Your task to perform on an android device: Go to Reddit.com Image 0: 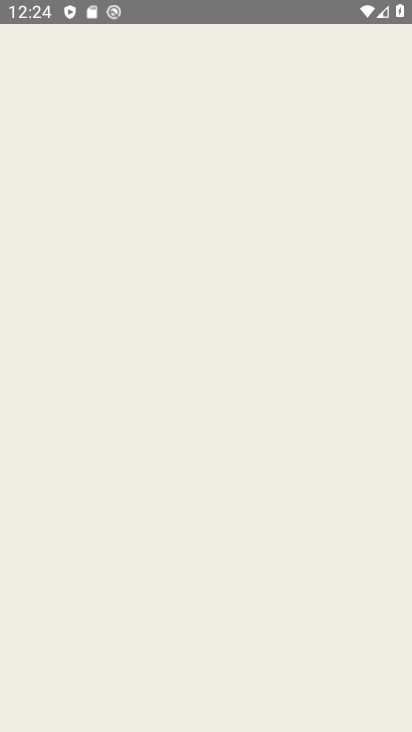
Step 0: press home button
Your task to perform on an android device: Go to Reddit.com Image 1: 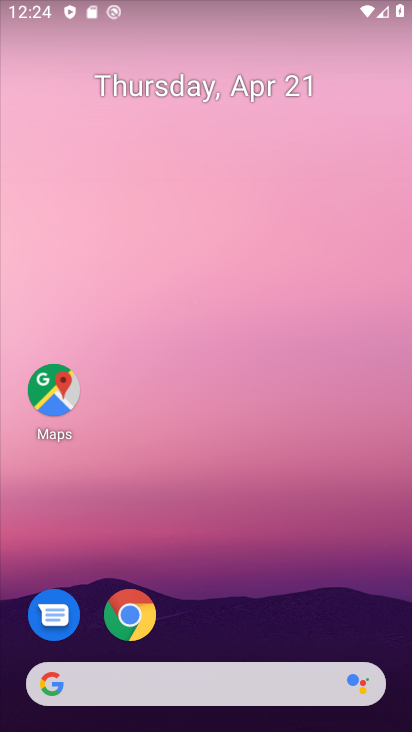
Step 1: click (137, 623)
Your task to perform on an android device: Go to Reddit.com Image 2: 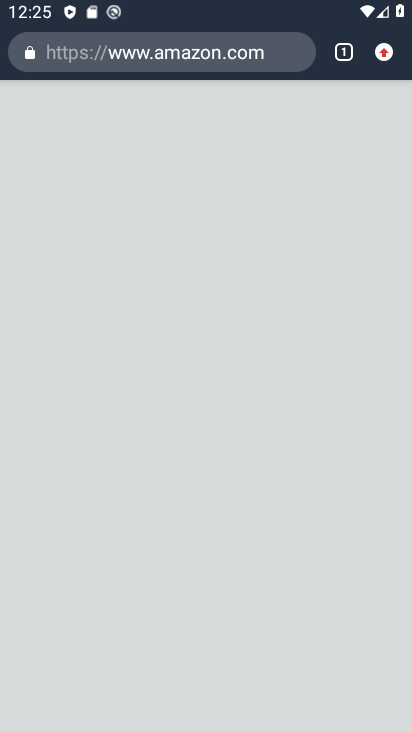
Step 2: click (384, 50)
Your task to perform on an android device: Go to Reddit.com Image 3: 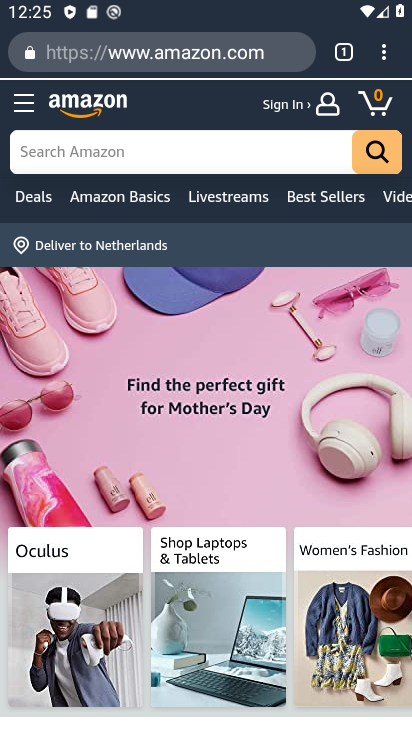
Step 3: drag from (384, 50) to (195, 174)
Your task to perform on an android device: Go to Reddit.com Image 4: 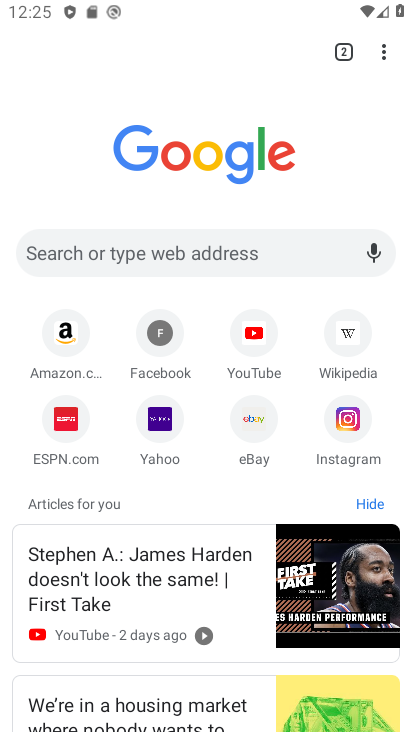
Step 4: click (234, 251)
Your task to perform on an android device: Go to Reddit.com Image 5: 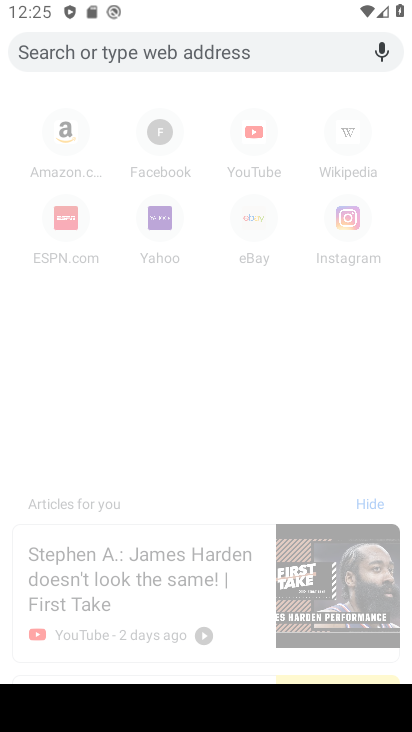
Step 5: type "Reddit.com"
Your task to perform on an android device: Go to Reddit.com Image 6: 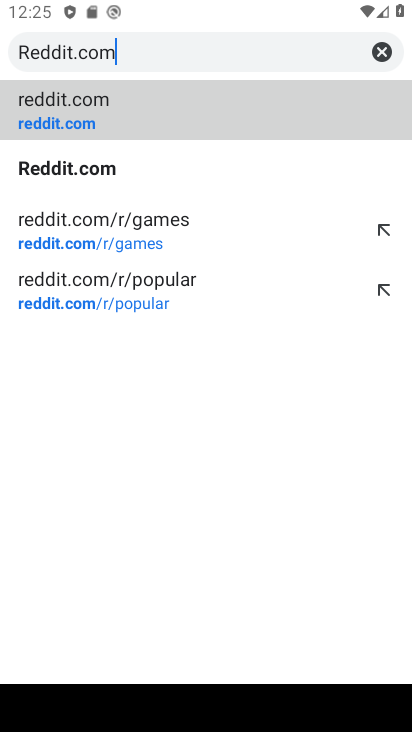
Step 6: click (85, 100)
Your task to perform on an android device: Go to Reddit.com Image 7: 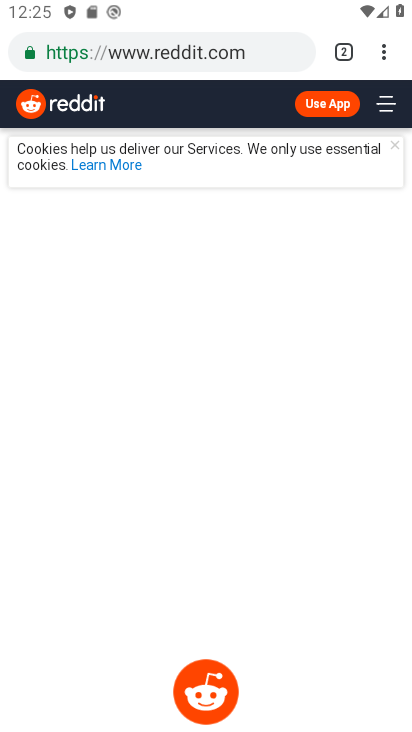
Step 7: task complete